Your task to perform on an android device: turn on improve location accuracy Image 0: 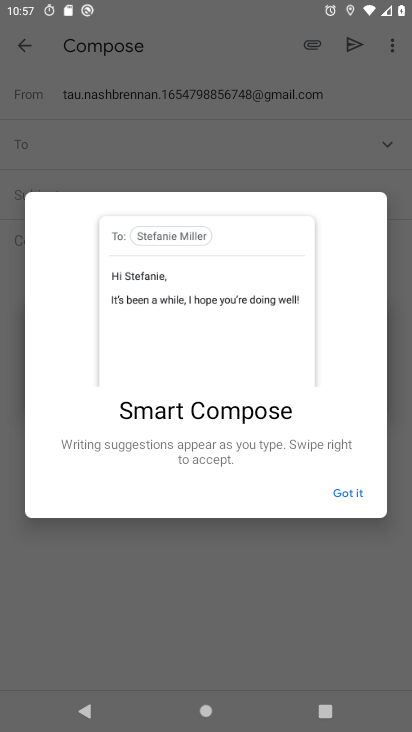
Step 0: click (349, 502)
Your task to perform on an android device: turn on improve location accuracy Image 1: 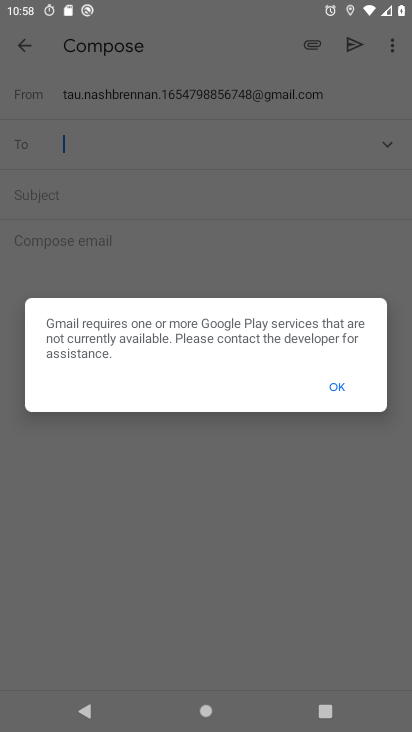
Step 1: click (341, 385)
Your task to perform on an android device: turn on improve location accuracy Image 2: 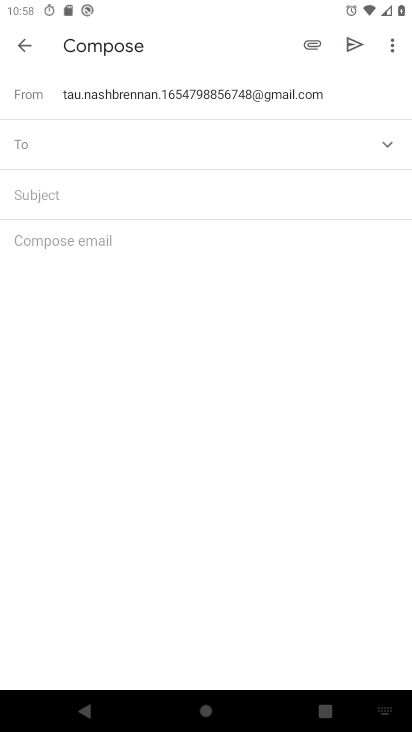
Step 2: click (19, 44)
Your task to perform on an android device: turn on improve location accuracy Image 3: 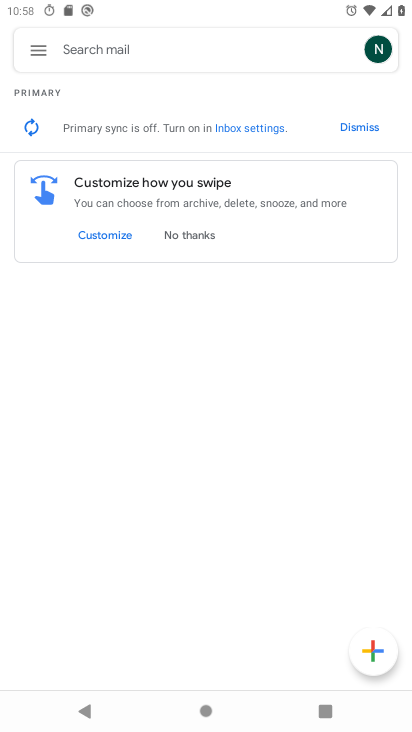
Step 3: press back button
Your task to perform on an android device: turn on improve location accuracy Image 4: 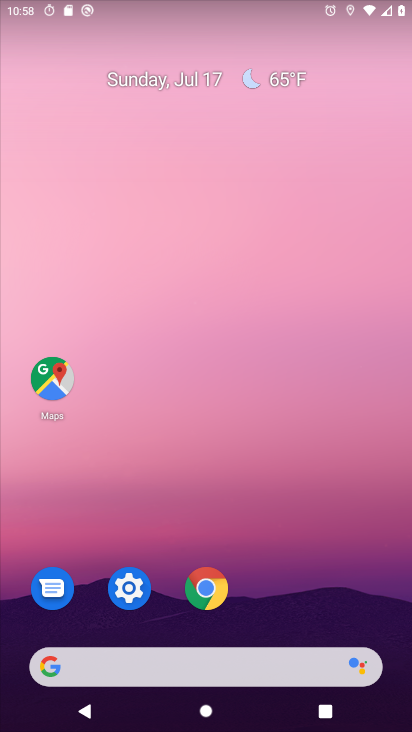
Step 4: drag from (266, 487) to (268, 180)
Your task to perform on an android device: turn on improve location accuracy Image 5: 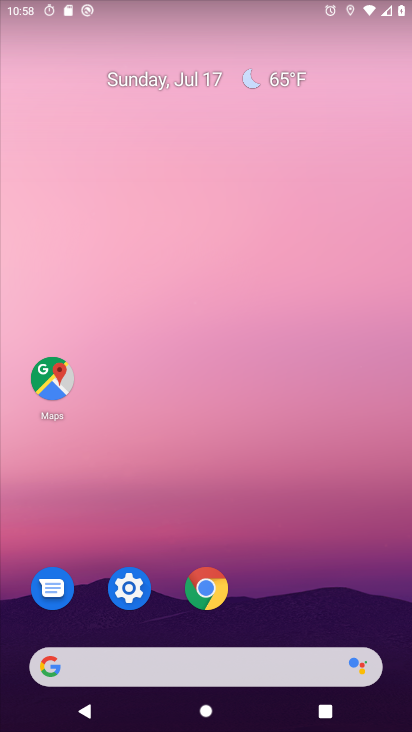
Step 5: drag from (185, 677) to (192, 180)
Your task to perform on an android device: turn on improve location accuracy Image 6: 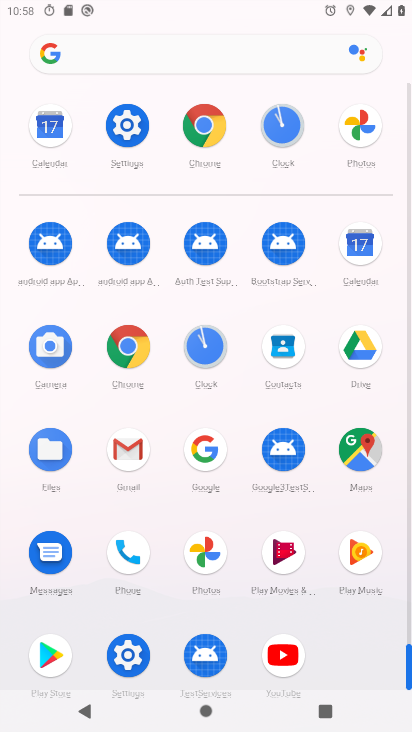
Step 6: click (121, 140)
Your task to perform on an android device: turn on improve location accuracy Image 7: 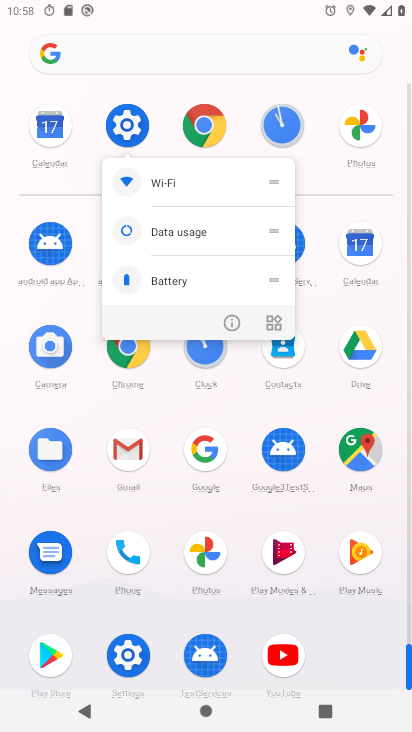
Step 7: click (124, 116)
Your task to perform on an android device: turn on improve location accuracy Image 8: 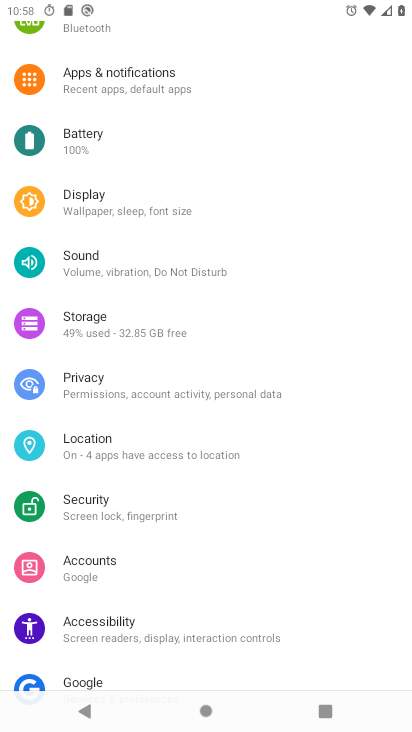
Step 8: drag from (190, 491) to (197, 212)
Your task to perform on an android device: turn on improve location accuracy Image 9: 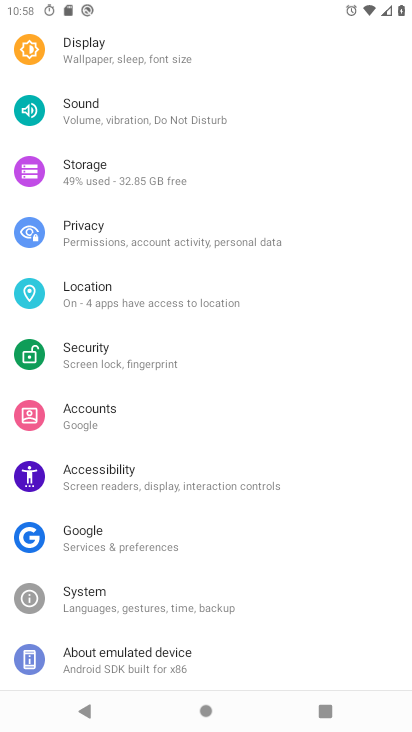
Step 9: click (76, 290)
Your task to perform on an android device: turn on improve location accuracy Image 10: 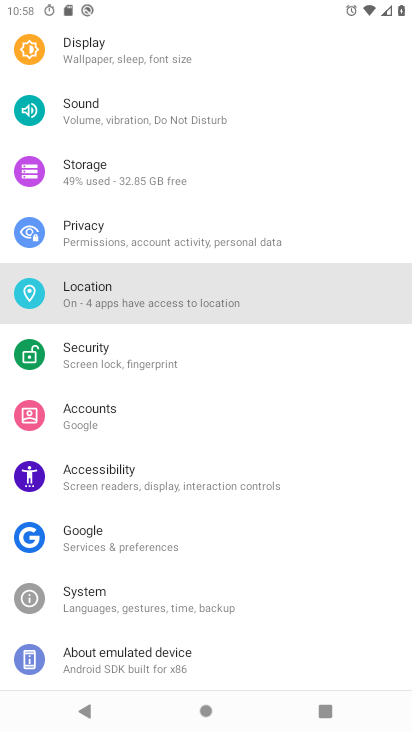
Step 10: click (99, 310)
Your task to perform on an android device: turn on improve location accuracy Image 11: 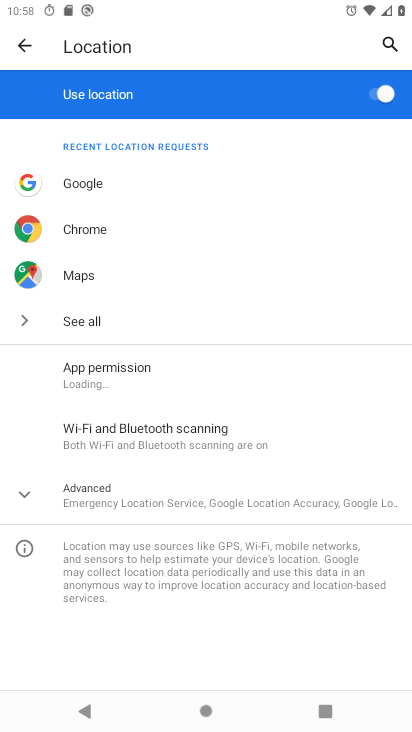
Step 11: click (90, 494)
Your task to perform on an android device: turn on improve location accuracy Image 12: 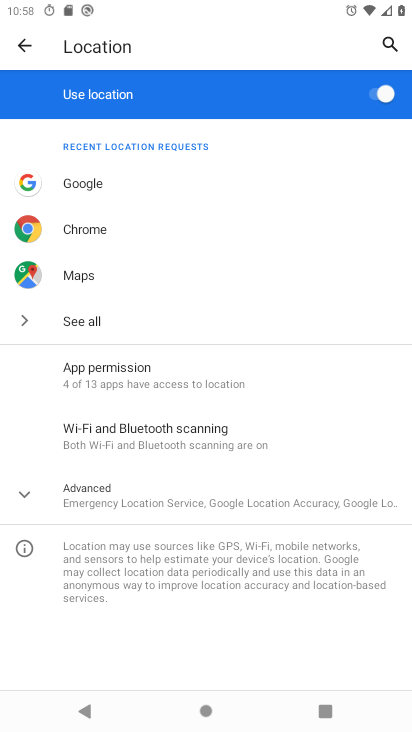
Step 12: click (90, 494)
Your task to perform on an android device: turn on improve location accuracy Image 13: 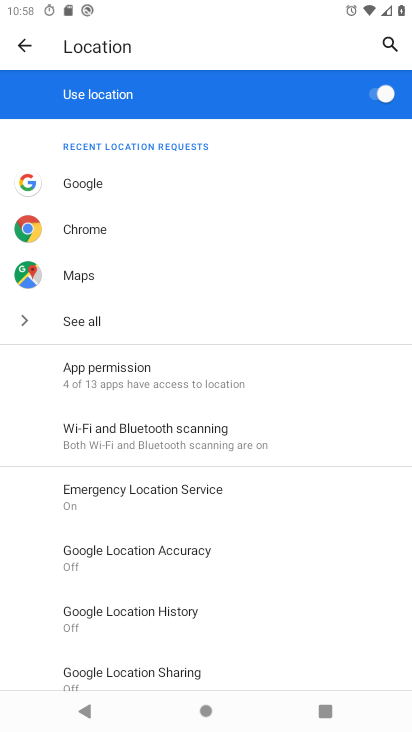
Step 13: drag from (207, 601) to (186, 352)
Your task to perform on an android device: turn on improve location accuracy Image 14: 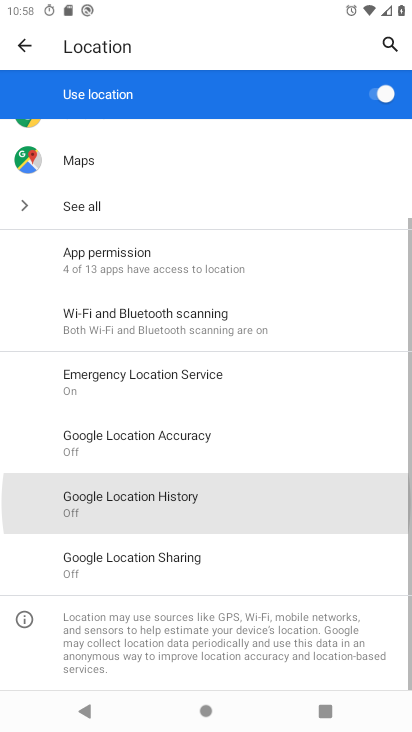
Step 14: drag from (257, 614) to (235, 299)
Your task to perform on an android device: turn on improve location accuracy Image 15: 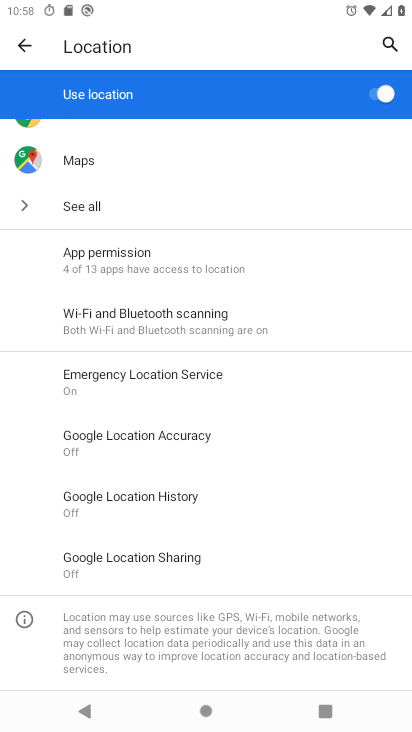
Step 15: click (121, 438)
Your task to perform on an android device: turn on improve location accuracy Image 16: 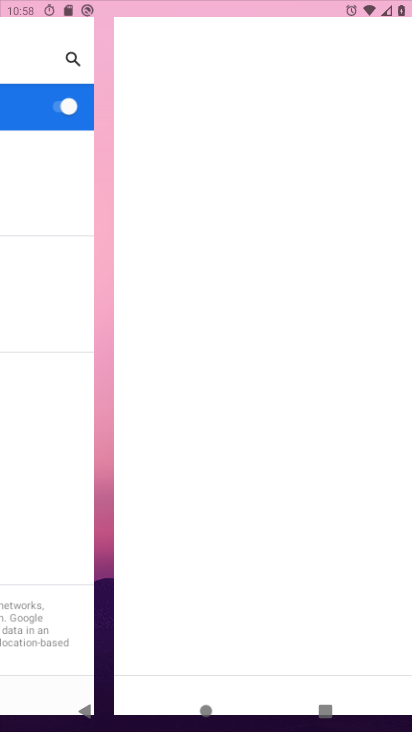
Step 16: click (137, 437)
Your task to perform on an android device: turn on improve location accuracy Image 17: 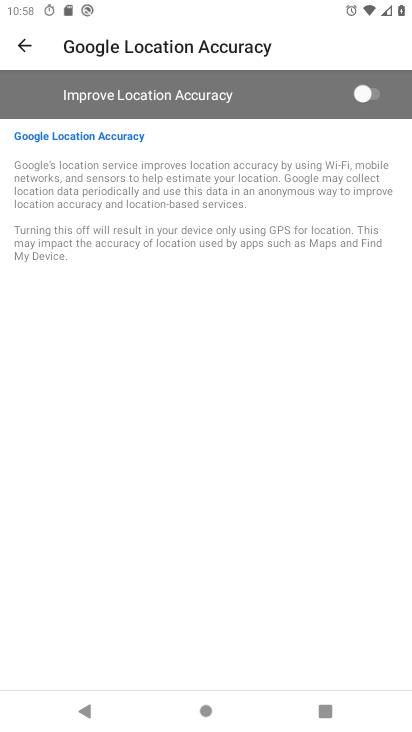
Step 17: click (367, 93)
Your task to perform on an android device: turn on improve location accuracy Image 18: 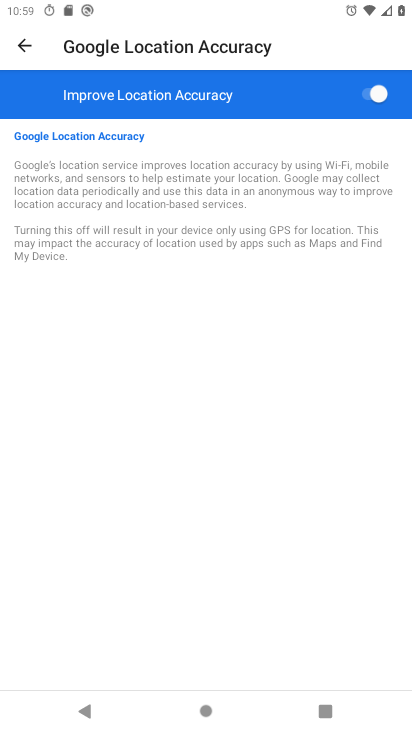
Step 18: task complete